Your task to perform on an android device: Open sound settings Image 0: 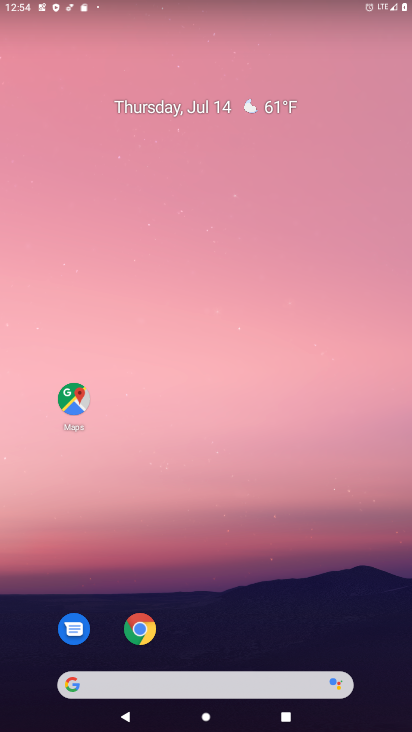
Step 0: drag from (238, 562) to (223, 52)
Your task to perform on an android device: Open sound settings Image 1: 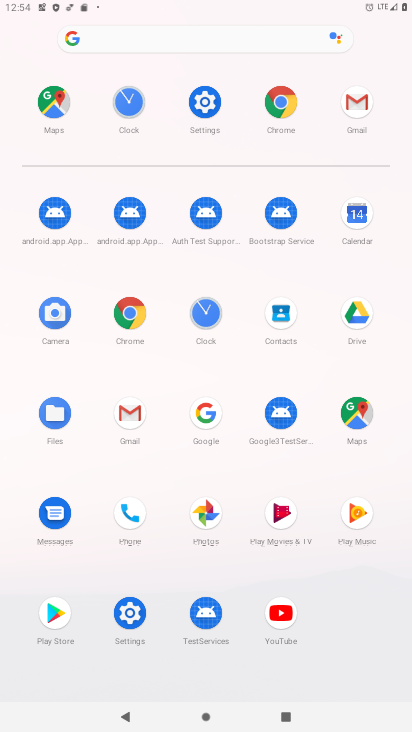
Step 1: click (206, 94)
Your task to perform on an android device: Open sound settings Image 2: 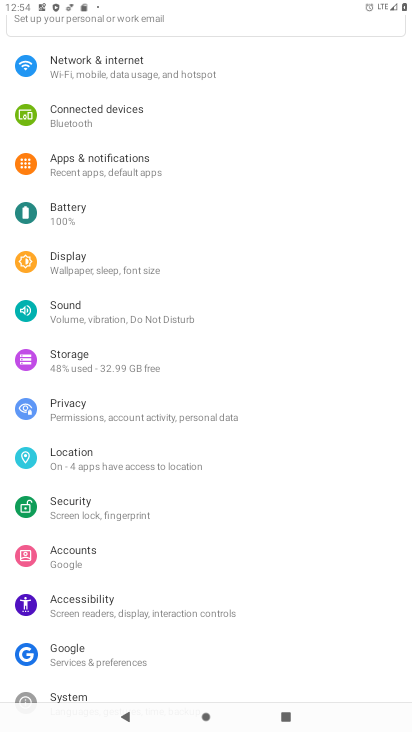
Step 2: click (63, 305)
Your task to perform on an android device: Open sound settings Image 3: 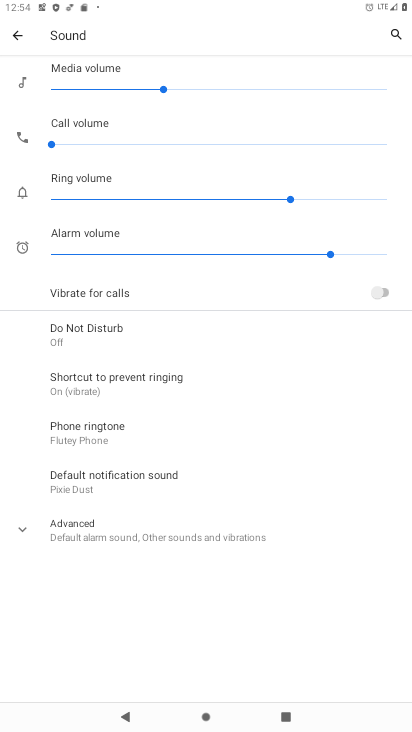
Step 3: task complete